Your task to perform on an android device: Go to Wikipedia Image 0: 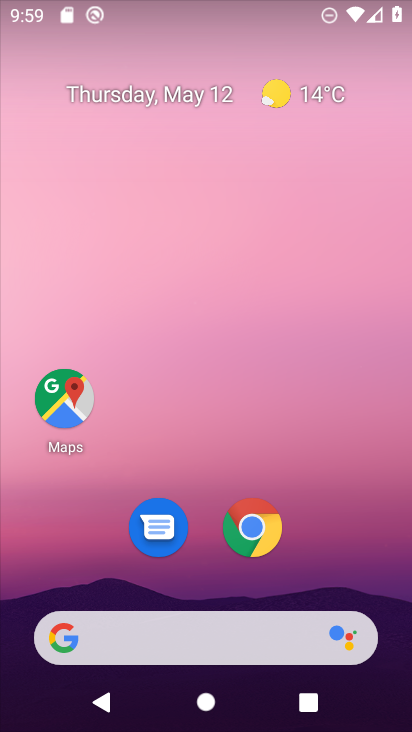
Step 0: drag from (357, 582) to (318, 2)
Your task to perform on an android device: Go to Wikipedia Image 1: 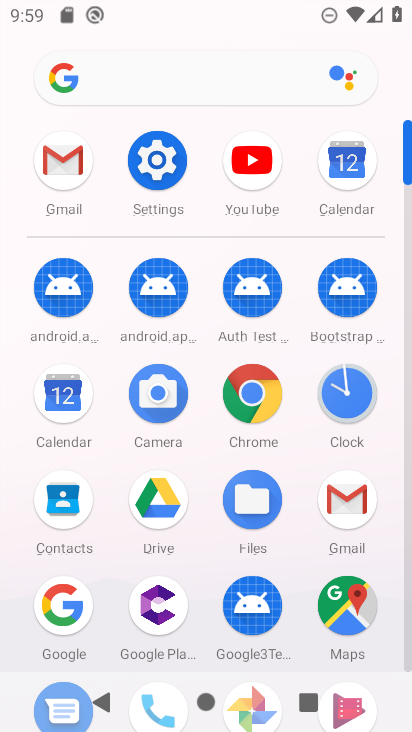
Step 1: click (252, 412)
Your task to perform on an android device: Go to Wikipedia Image 2: 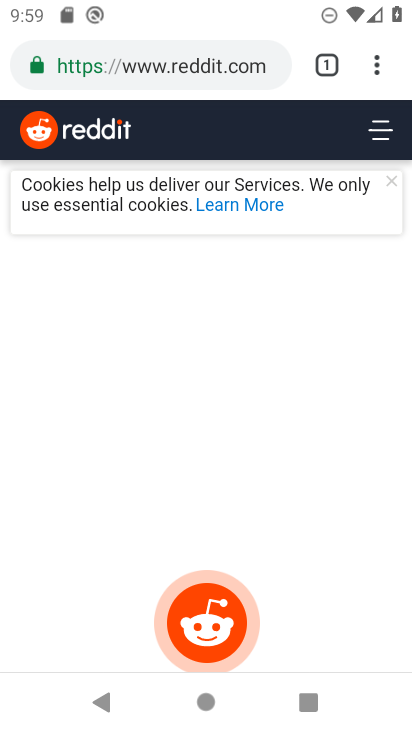
Step 2: click (224, 54)
Your task to perform on an android device: Go to Wikipedia Image 3: 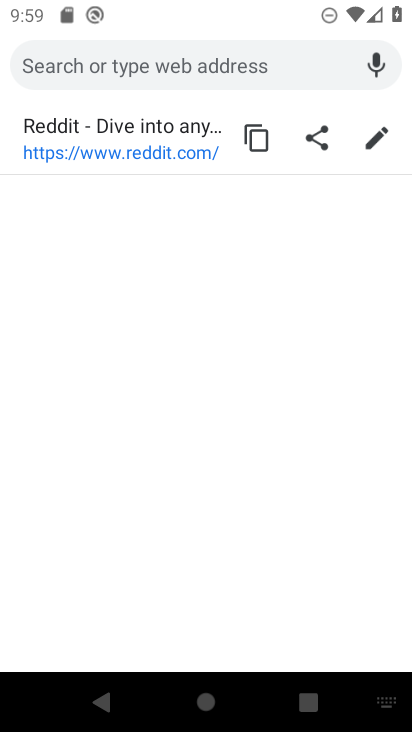
Step 3: type "wikipedia"
Your task to perform on an android device: Go to Wikipedia Image 4: 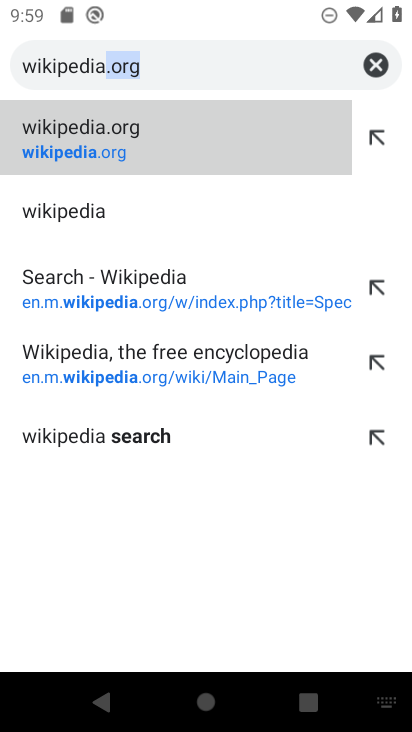
Step 4: click (282, 314)
Your task to perform on an android device: Go to Wikipedia Image 5: 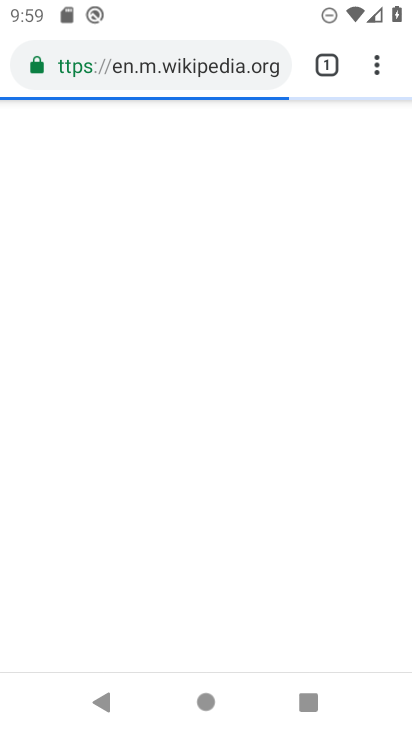
Step 5: task complete